Your task to perform on an android device: Search for pizza restaurants on Maps Image 0: 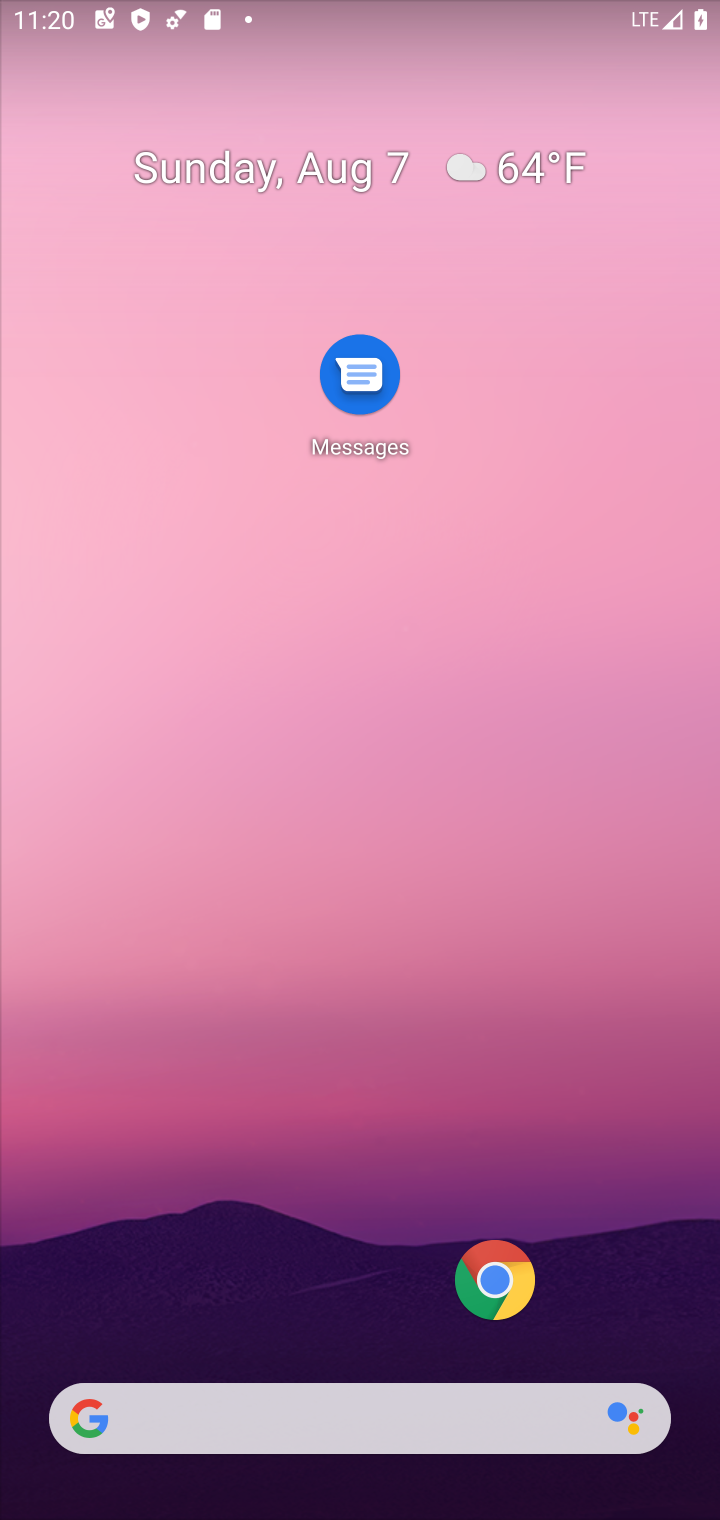
Step 0: drag from (265, 963) to (372, 218)
Your task to perform on an android device: Search for pizza restaurants on Maps Image 1: 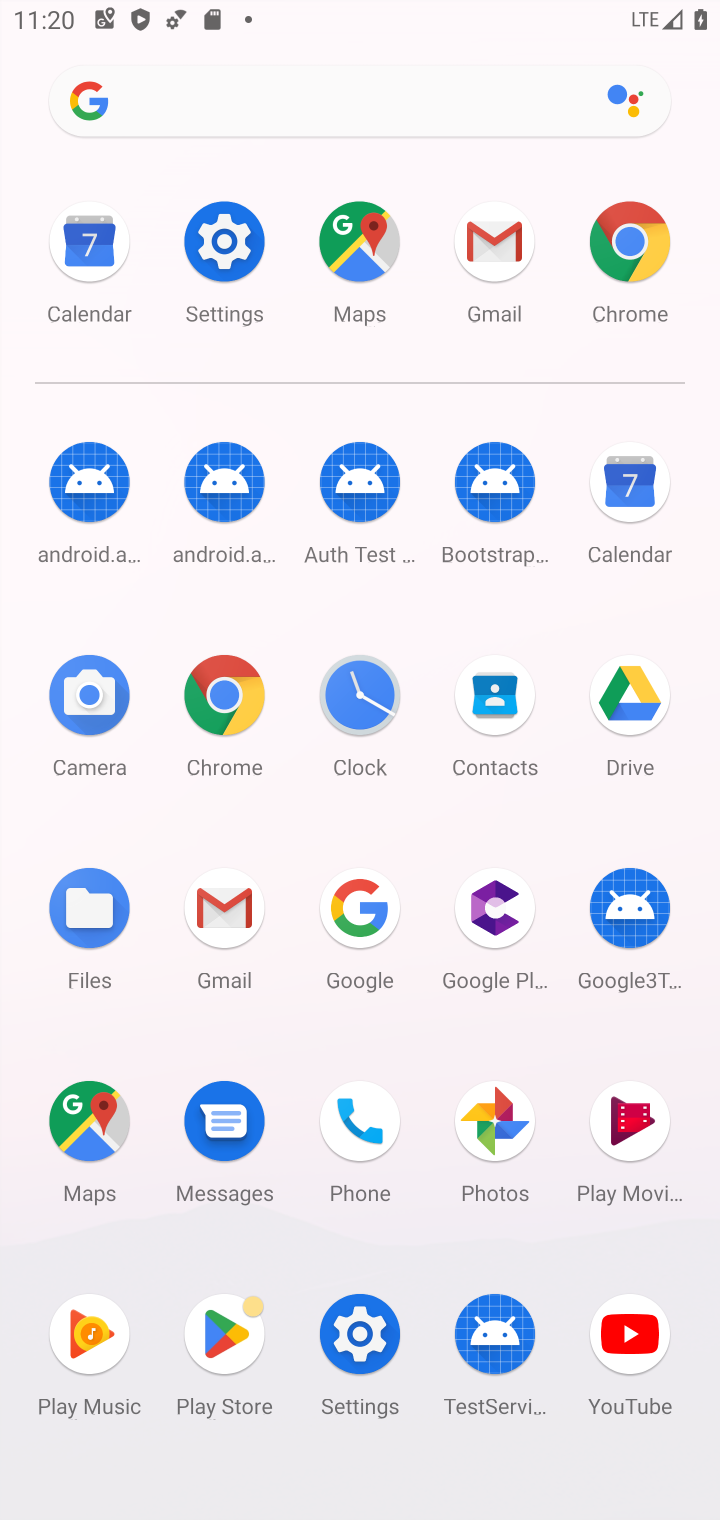
Step 1: click (366, 252)
Your task to perform on an android device: Search for pizza restaurants on Maps Image 2: 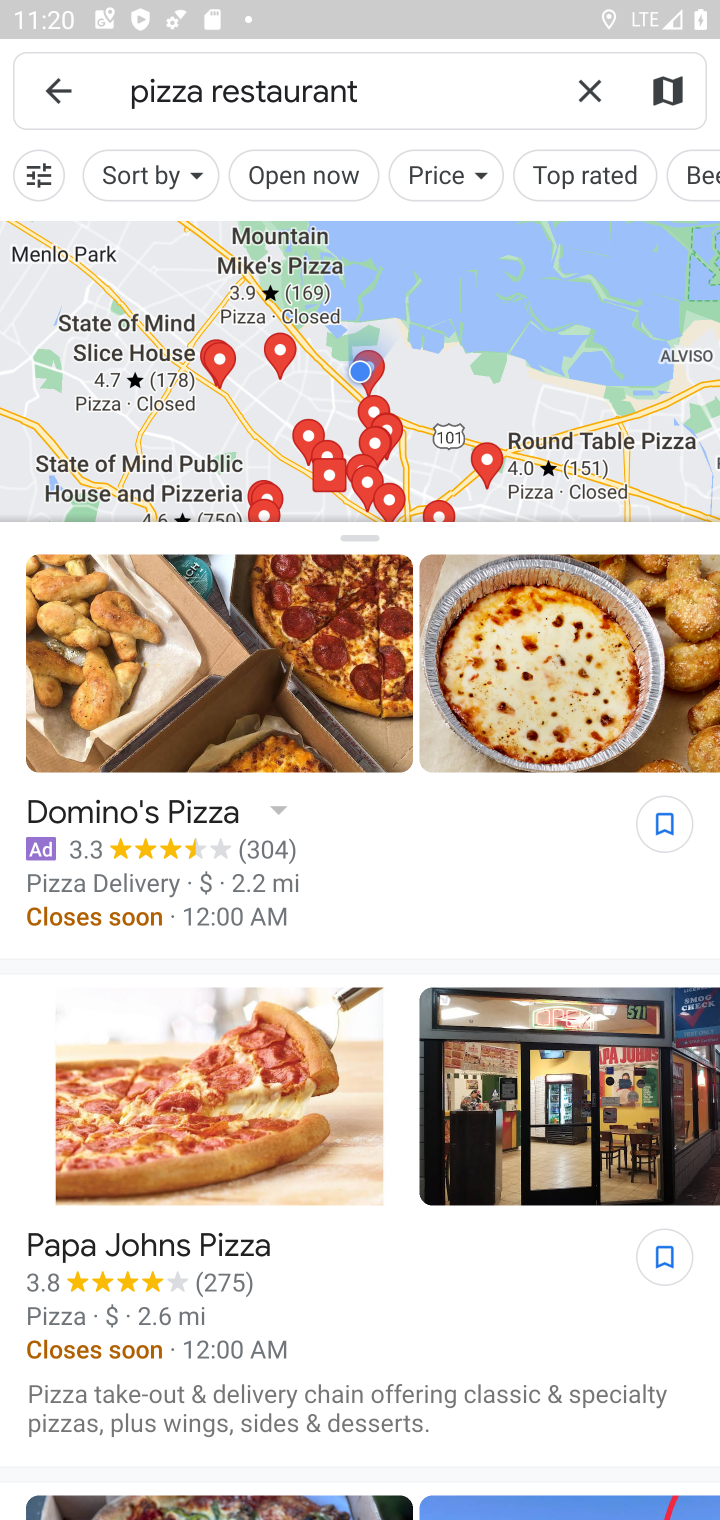
Step 2: task complete